Your task to perform on an android device: Go to battery settings Image 0: 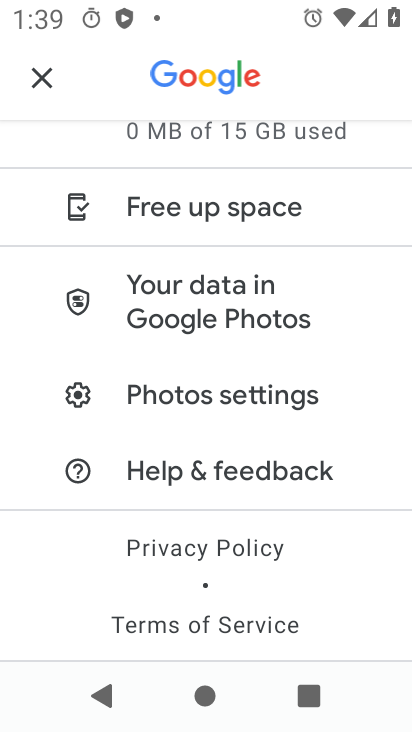
Step 0: press home button
Your task to perform on an android device: Go to battery settings Image 1: 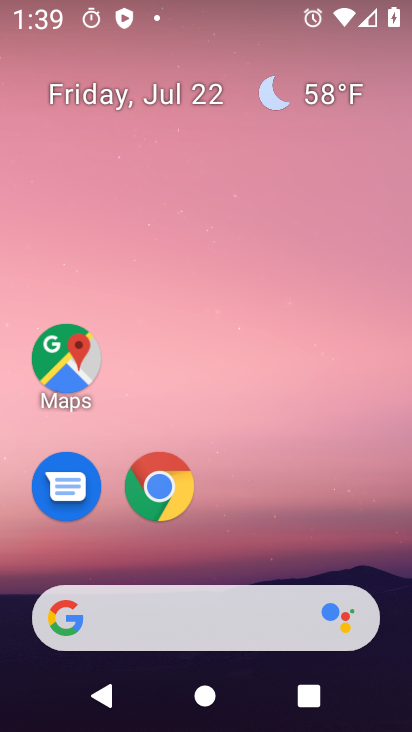
Step 1: drag from (364, 532) to (375, 91)
Your task to perform on an android device: Go to battery settings Image 2: 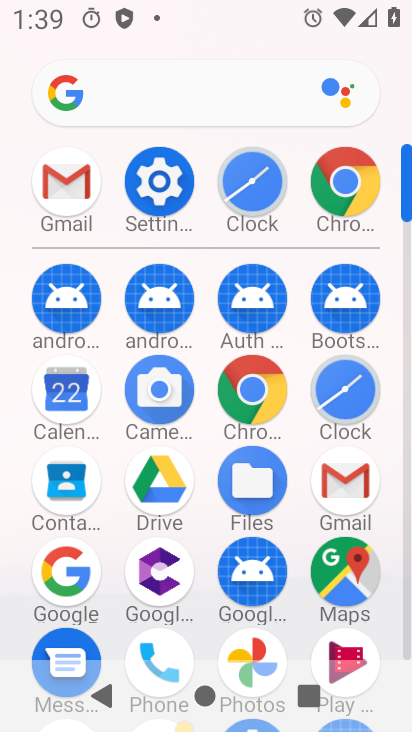
Step 2: click (143, 193)
Your task to perform on an android device: Go to battery settings Image 3: 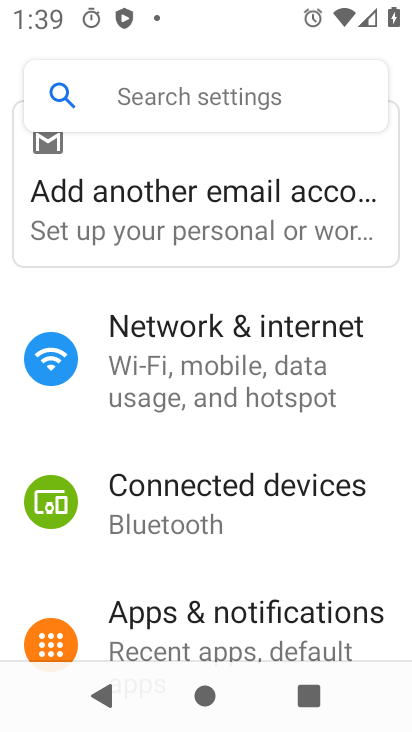
Step 3: drag from (344, 536) to (363, 376)
Your task to perform on an android device: Go to battery settings Image 4: 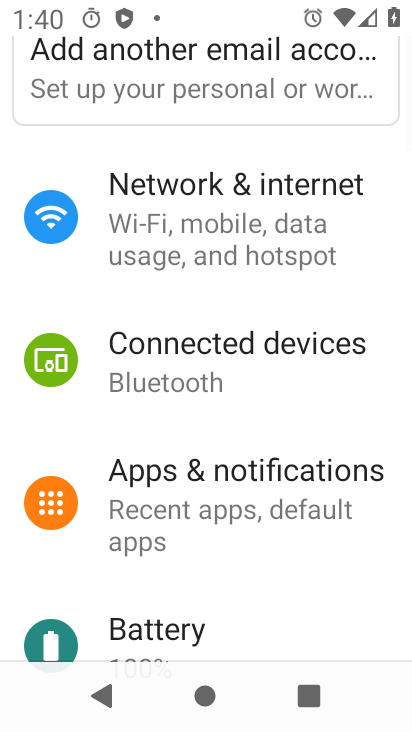
Step 4: drag from (361, 549) to (368, 396)
Your task to perform on an android device: Go to battery settings Image 5: 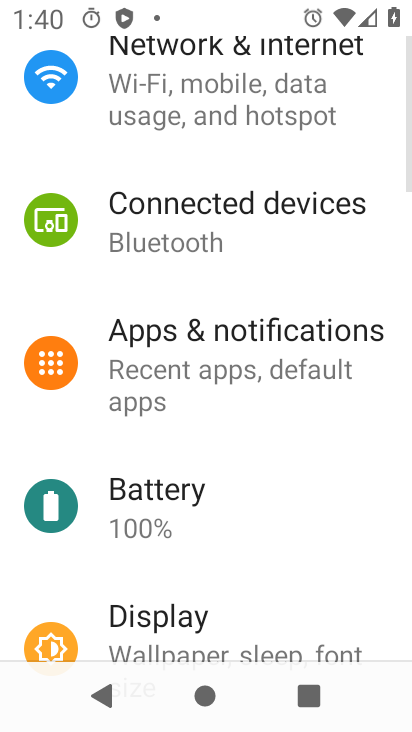
Step 5: drag from (348, 526) to (364, 370)
Your task to perform on an android device: Go to battery settings Image 6: 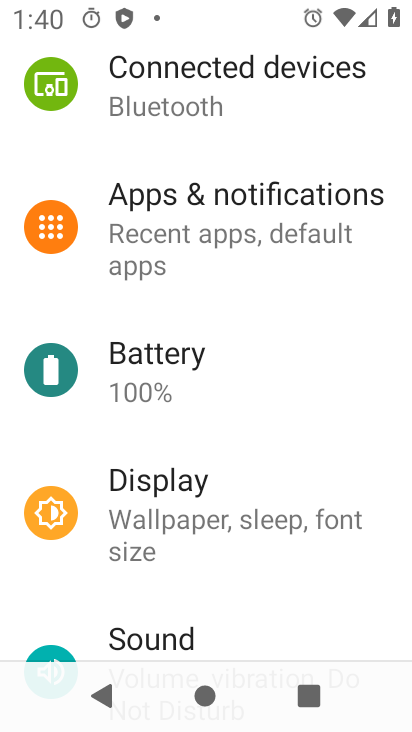
Step 6: drag from (353, 563) to (365, 411)
Your task to perform on an android device: Go to battery settings Image 7: 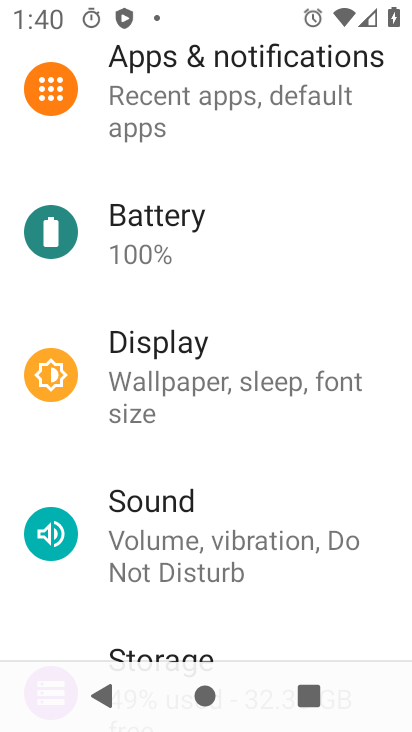
Step 7: drag from (366, 600) to (366, 472)
Your task to perform on an android device: Go to battery settings Image 8: 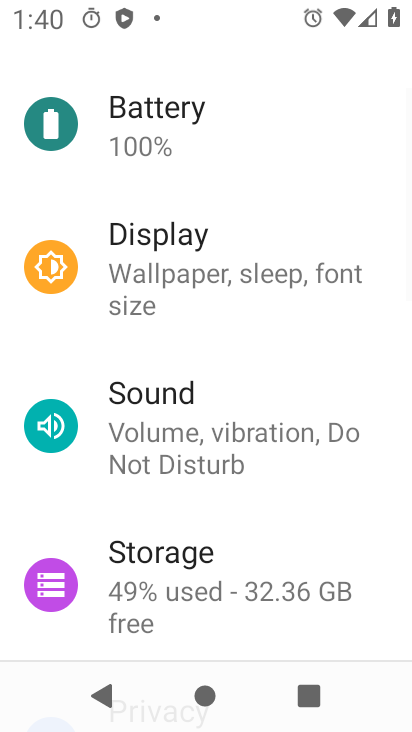
Step 8: drag from (366, 594) to (365, 456)
Your task to perform on an android device: Go to battery settings Image 9: 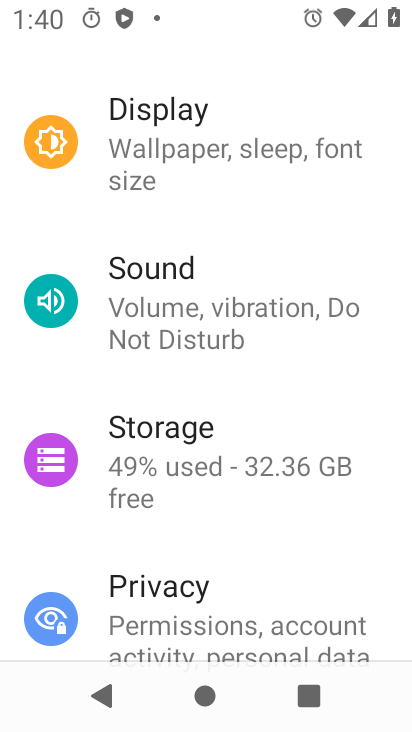
Step 9: drag from (348, 567) to (351, 448)
Your task to perform on an android device: Go to battery settings Image 10: 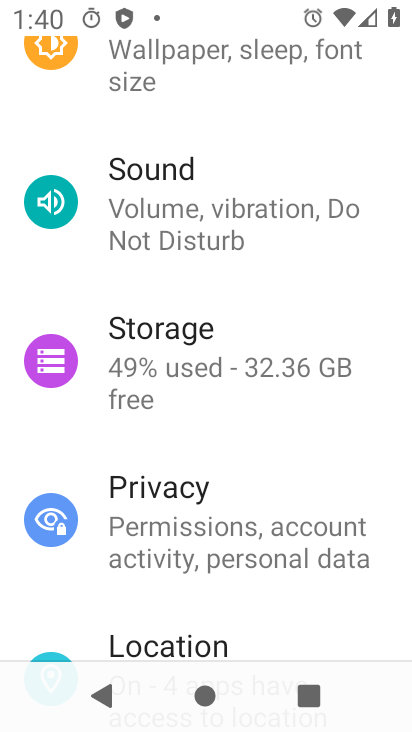
Step 10: drag from (343, 601) to (351, 467)
Your task to perform on an android device: Go to battery settings Image 11: 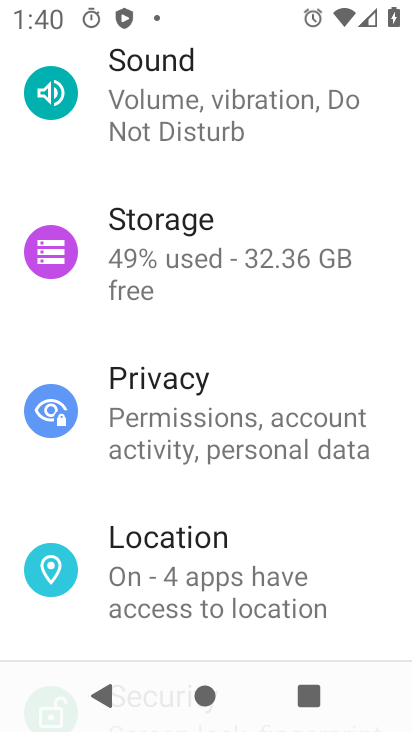
Step 11: drag from (352, 588) to (356, 459)
Your task to perform on an android device: Go to battery settings Image 12: 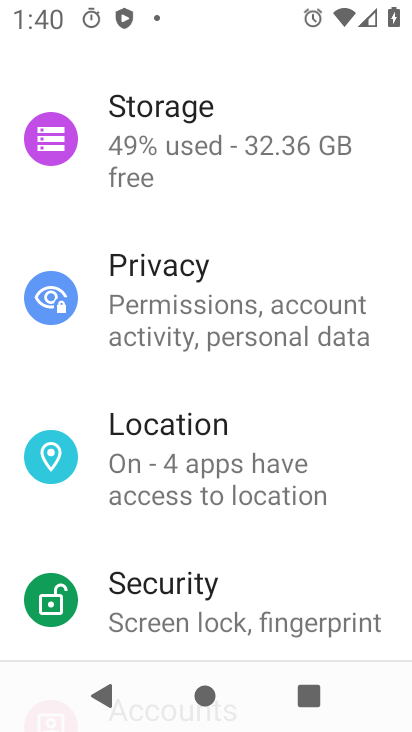
Step 12: drag from (366, 380) to (371, 479)
Your task to perform on an android device: Go to battery settings Image 13: 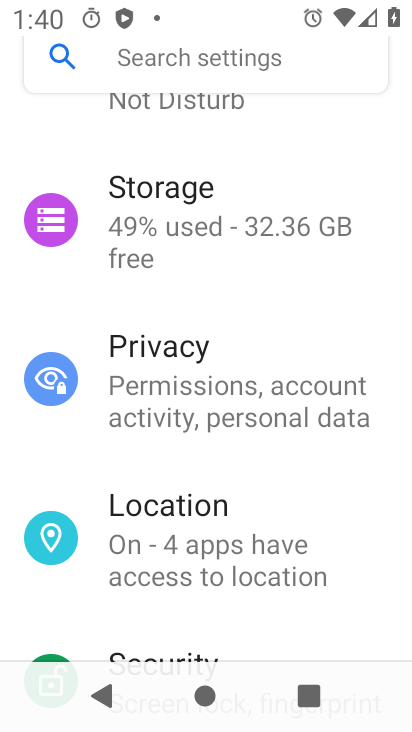
Step 13: drag from (376, 272) to (366, 512)
Your task to perform on an android device: Go to battery settings Image 14: 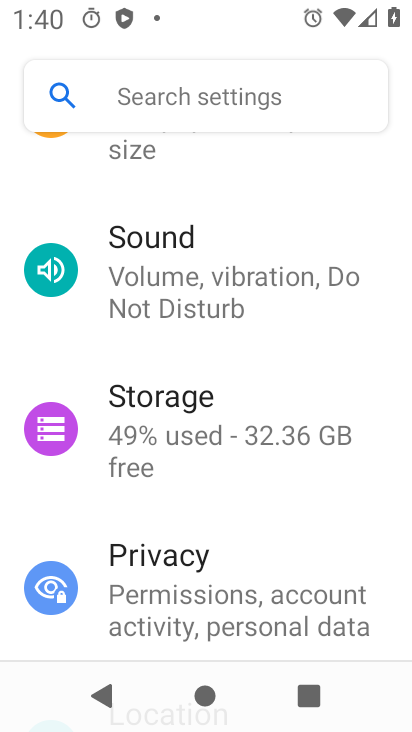
Step 14: drag from (355, 333) to (360, 468)
Your task to perform on an android device: Go to battery settings Image 15: 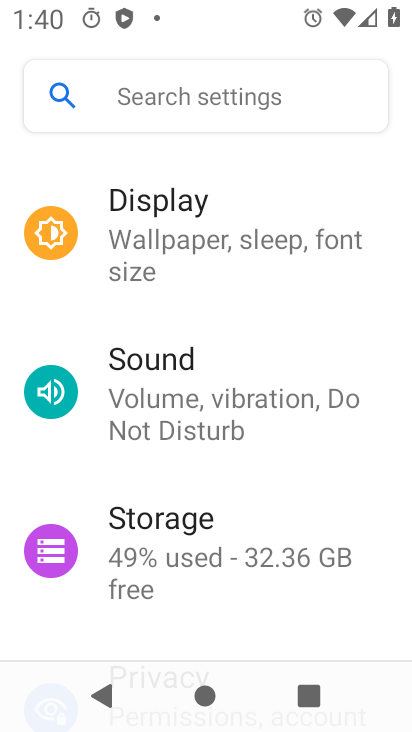
Step 15: drag from (385, 287) to (383, 398)
Your task to perform on an android device: Go to battery settings Image 16: 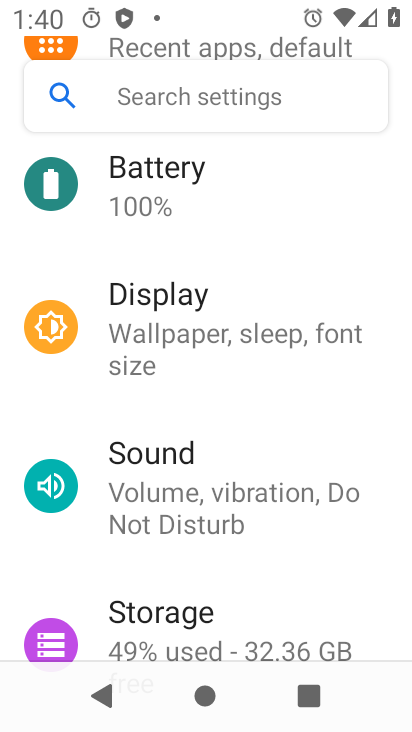
Step 16: drag from (370, 279) to (371, 416)
Your task to perform on an android device: Go to battery settings Image 17: 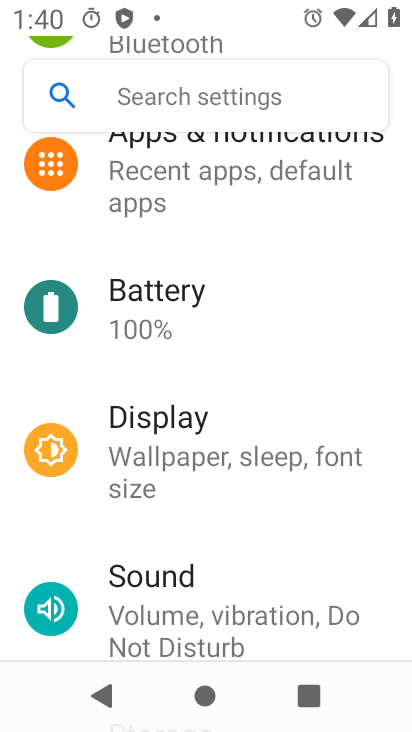
Step 17: drag from (350, 281) to (347, 407)
Your task to perform on an android device: Go to battery settings Image 18: 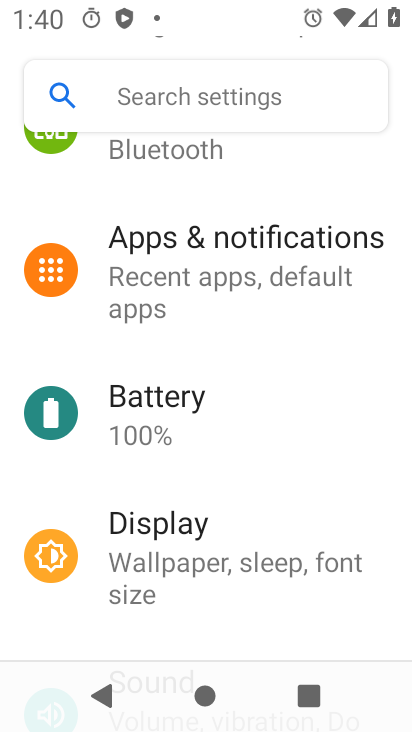
Step 18: click (268, 425)
Your task to perform on an android device: Go to battery settings Image 19: 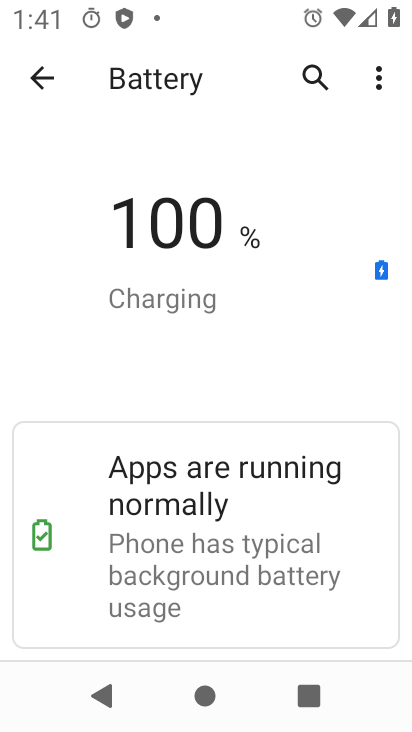
Step 19: task complete